Your task to perform on an android device: Go to location settings Image 0: 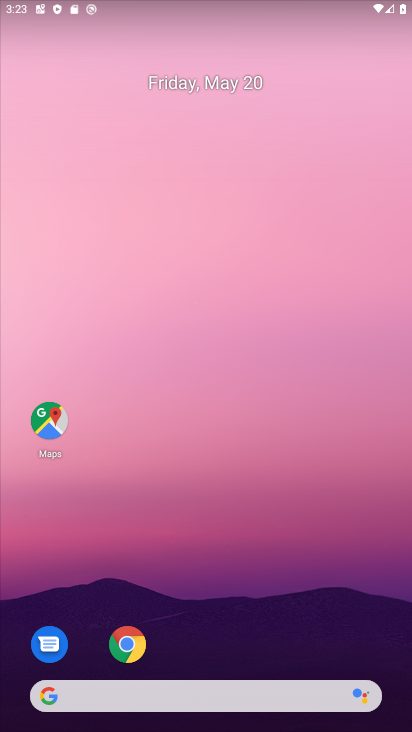
Step 0: drag from (296, 635) to (253, 173)
Your task to perform on an android device: Go to location settings Image 1: 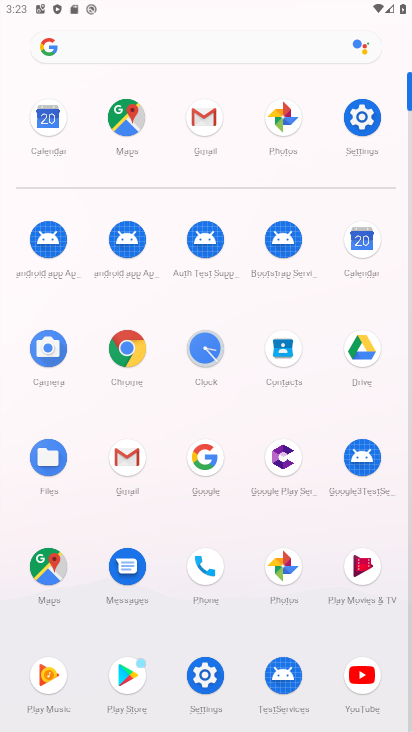
Step 1: click (377, 130)
Your task to perform on an android device: Go to location settings Image 2: 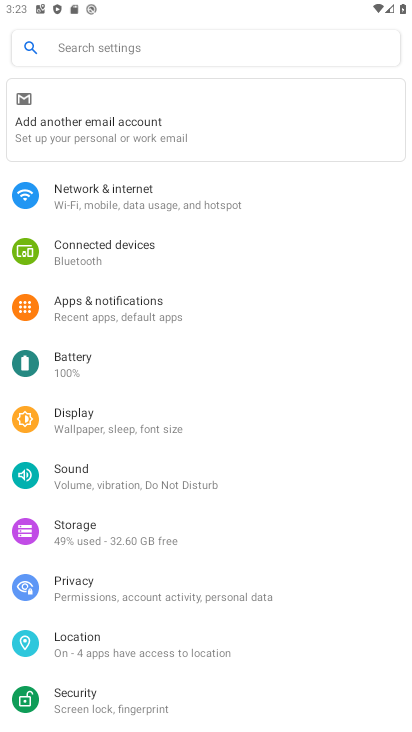
Step 2: click (187, 655)
Your task to perform on an android device: Go to location settings Image 3: 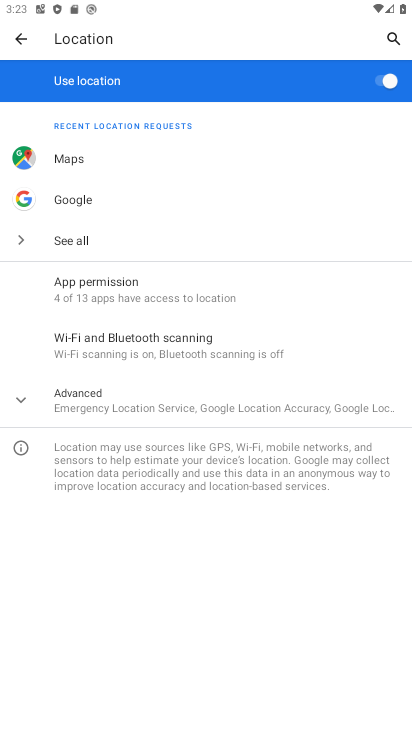
Step 3: task complete